Your task to perform on an android device: Toggle the flashlight Image 0: 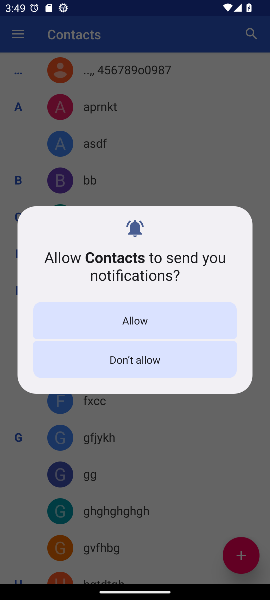
Step 0: press home button
Your task to perform on an android device: Toggle the flashlight Image 1: 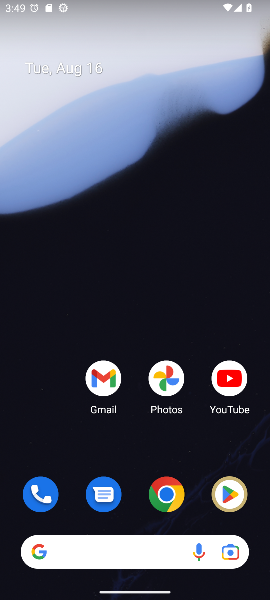
Step 1: drag from (153, 6) to (27, 543)
Your task to perform on an android device: Toggle the flashlight Image 2: 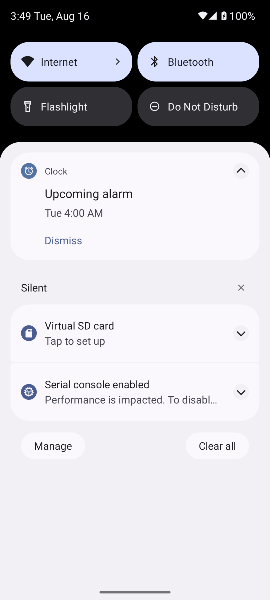
Step 2: click (32, 120)
Your task to perform on an android device: Toggle the flashlight Image 3: 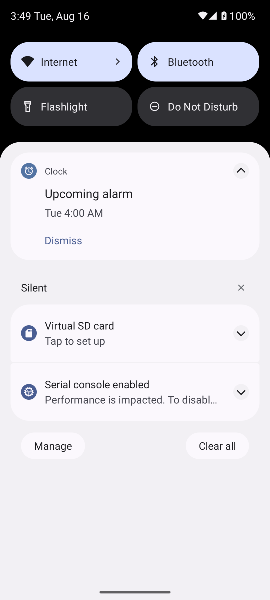
Step 3: task complete